Your task to perform on an android device: turn off location Image 0: 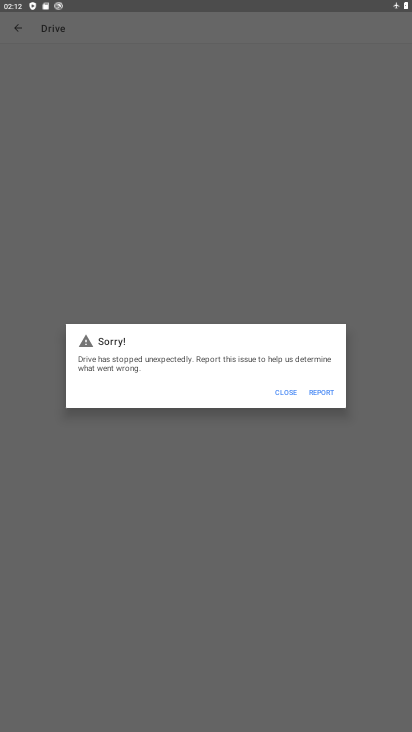
Step 0: press home button
Your task to perform on an android device: turn off location Image 1: 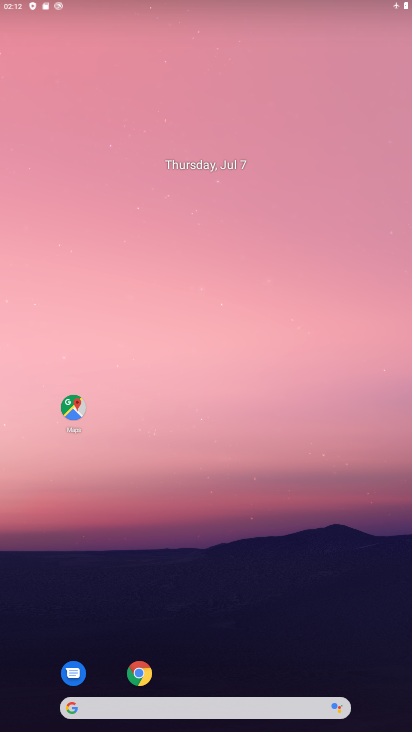
Step 1: drag from (290, 618) to (269, 35)
Your task to perform on an android device: turn off location Image 2: 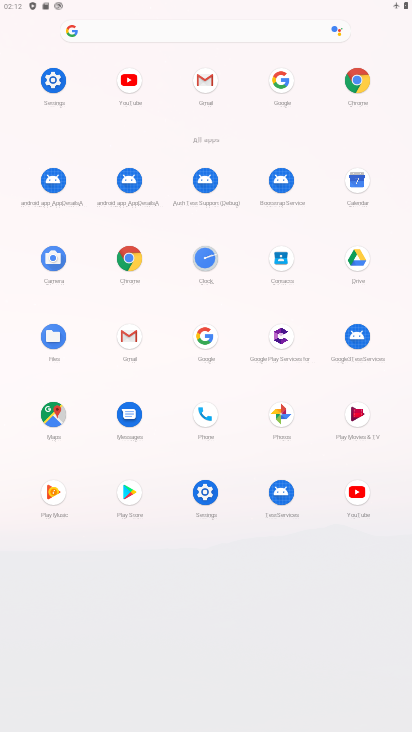
Step 2: click (52, 83)
Your task to perform on an android device: turn off location Image 3: 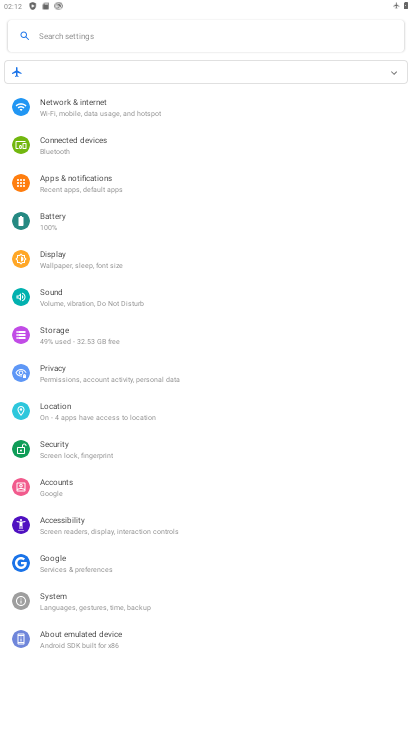
Step 3: click (69, 420)
Your task to perform on an android device: turn off location Image 4: 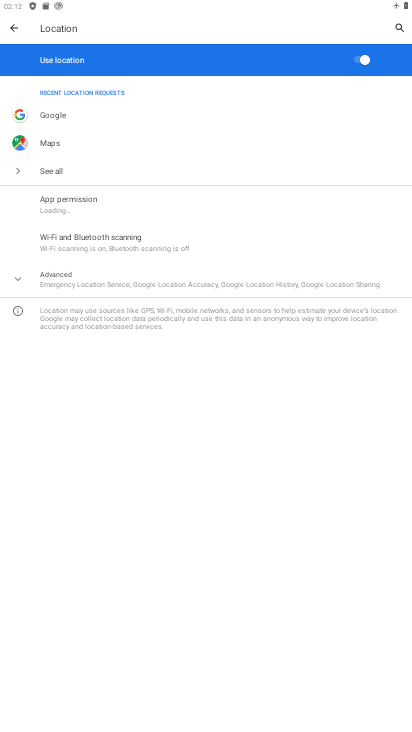
Step 4: click (362, 58)
Your task to perform on an android device: turn off location Image 5: 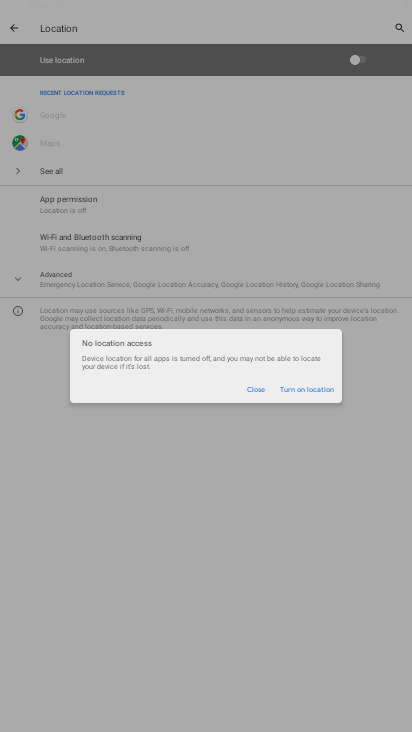
Step 5: task complete